Your task to perform on an android device: open wifi settings Image 0: 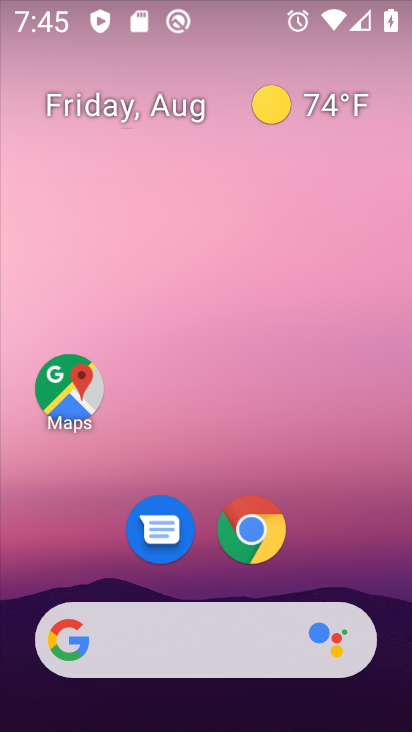
Step 0: drag from (184, 653) to (210, 229)
Your task to perform on an android device: open wifi settings Image 1: 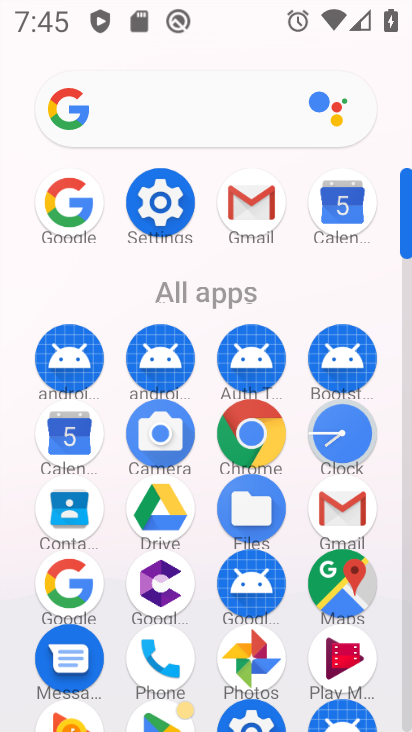
Step 1: click (166, 209)
Your task to perform on an android device: open wifi settings Image 2: 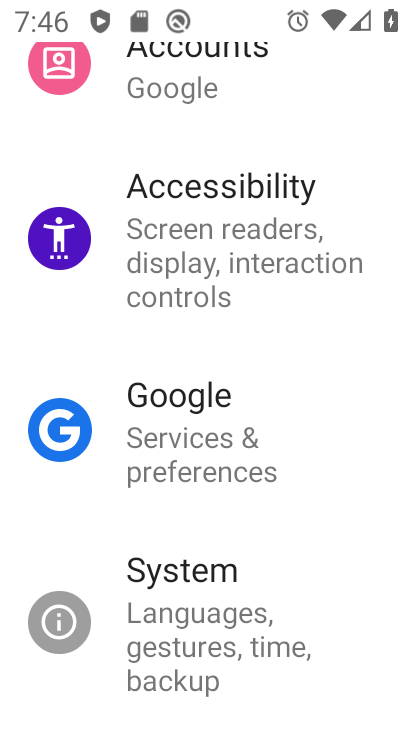
Step 2: drag from (209, 138) to (222, 537)
Your task to perform on an android device: open wifi settings Image 3: 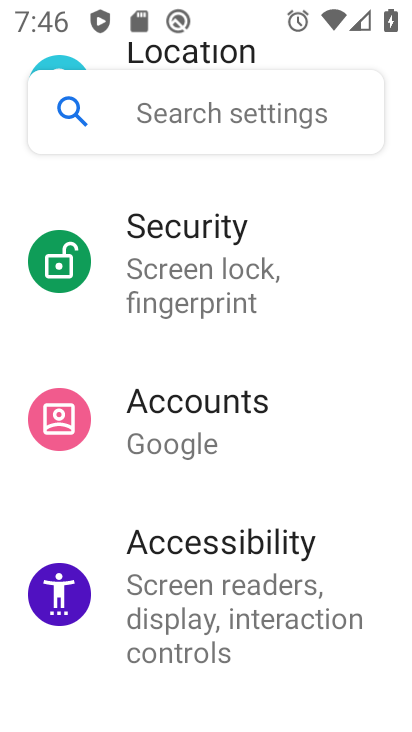
Step 3: drag from (249, 222) to (284, 589)
Your task to perform on an android device: open wifi settings Image 4: 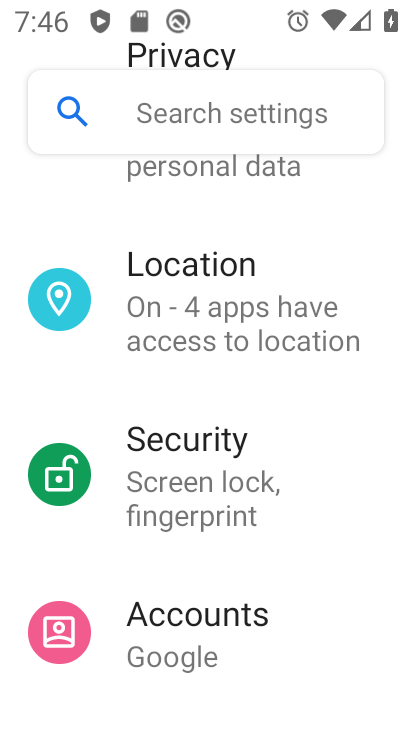
Step 4: drag from (283, 230) to (243, 443)
Your task to perform on an android device: open wifi settings Image 5: 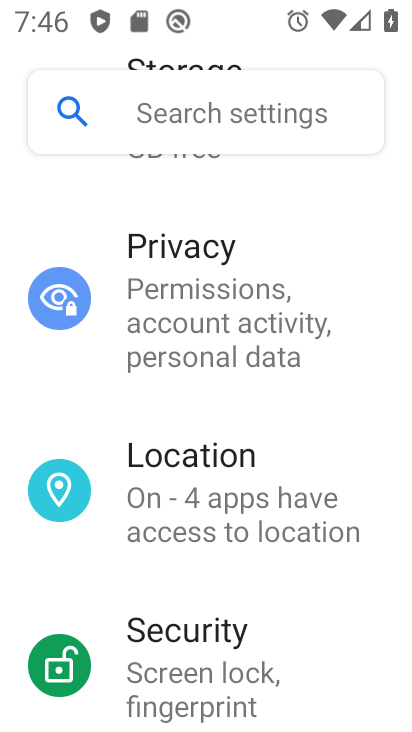
Step 5: drag from (251, 193) to (213, 473)
Your task to perform on an android device: open wifi settings Image 6: 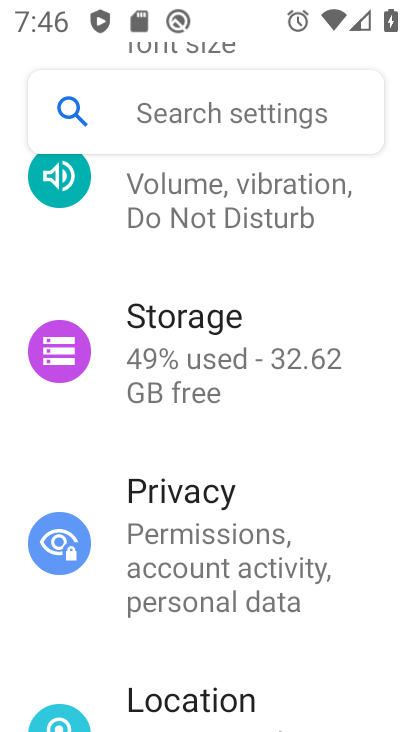
Step 6: drag from (265, 294) to (230, 479)
Your task to perform on an android device: open wifi settings Image 7: 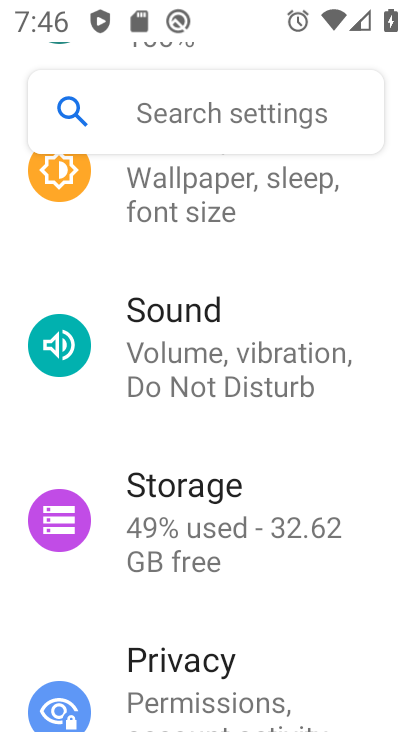
Step 7: drag from (260, 244) to (232, 469)
Your task to perform on an android device: open wifi settings Image 8: 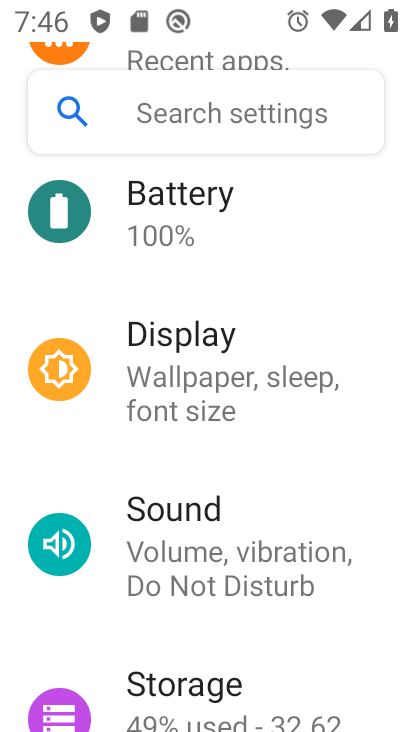
Step 8: drag from (249, 237) to (220, 394)
Your task to perform on an android device: open wifi settings Image 9: 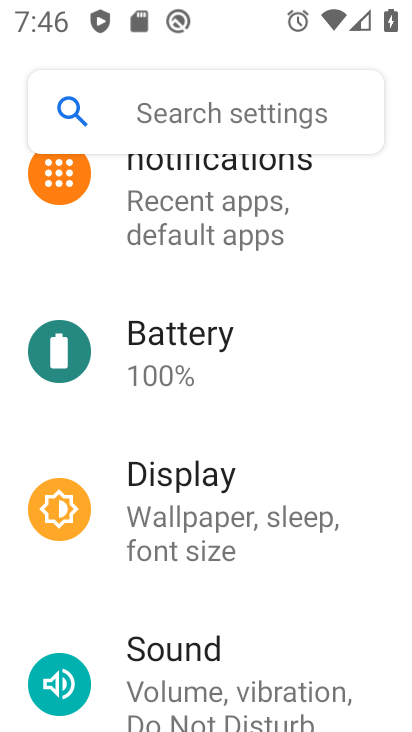
Step 9: drag from (208, 261) to (224, 425)
Your task to perform on an android device: open wifi settings Image 10: 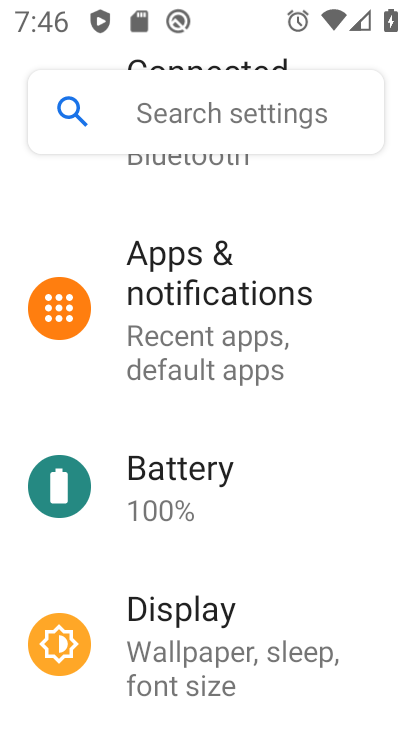
Step 10: drag from (208, 203) to (259, 447)
Your task to perform on an android device: open wifi settings Image 11: 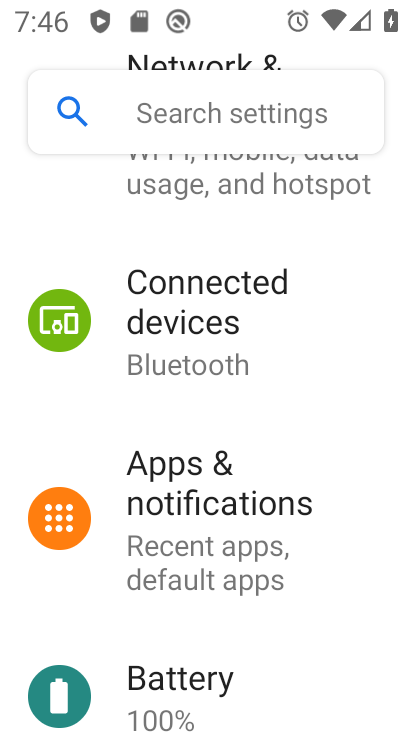
Step 11: drag from (229, 236) to (241, 496)
Your task to perform on an android device: open wifi settings Image 12: 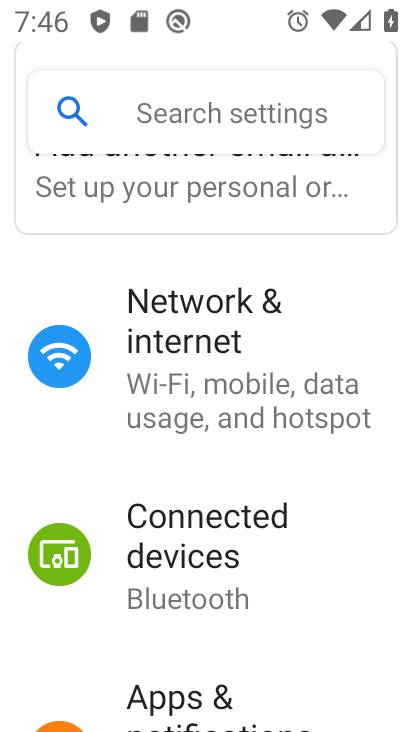
Step 12: click (224, 317)
Your task to perform on an android device: open wifi settings Image 13: 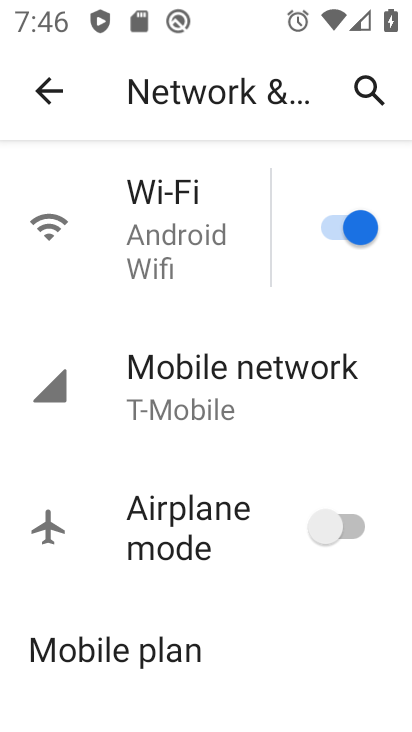
Step 13: click (151, 229)
Your task to perform on an android device: open wifi settings Image 14: 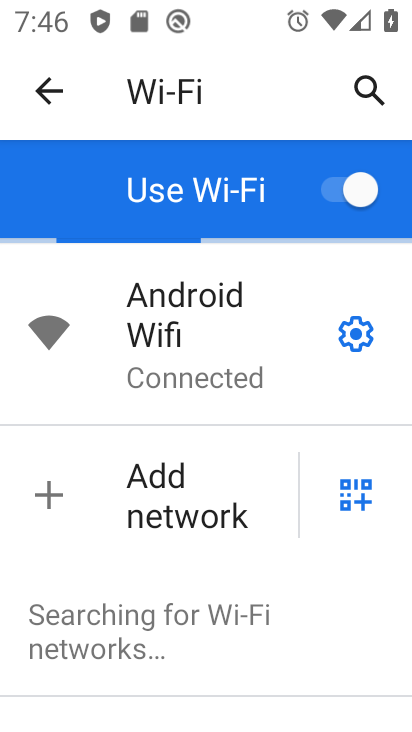
Step 14: click (356, 337)
Your task to perform on an android device: open wifi settings Image 15: 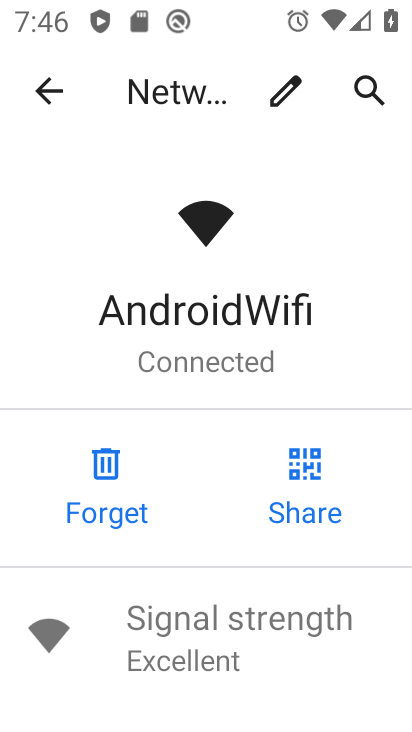
Step 15: task complete